Your task to perform on an android device: turn off picture-in-picture Image 0: 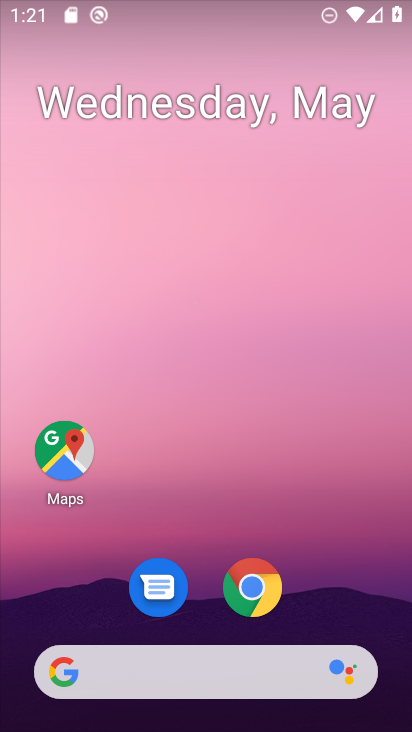
Step 0: drag from (317, 631) to (329, 149)
Your task to perform on an android device: turn off picture-in-picture Image 1: 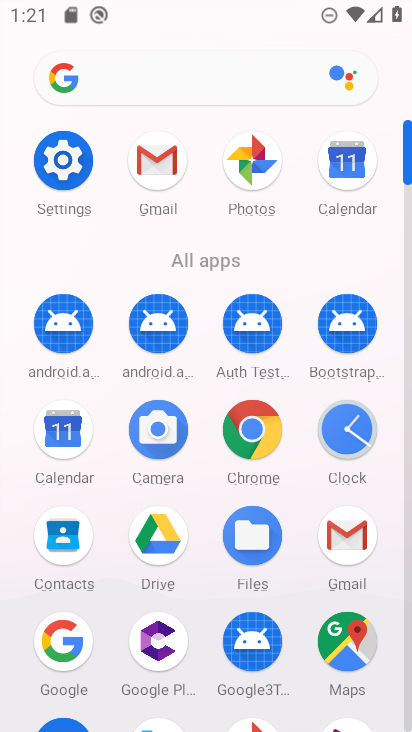
Step 1: click (39, 172)
Your task to perform on an android device: turn off picture-in-picture Image 2: 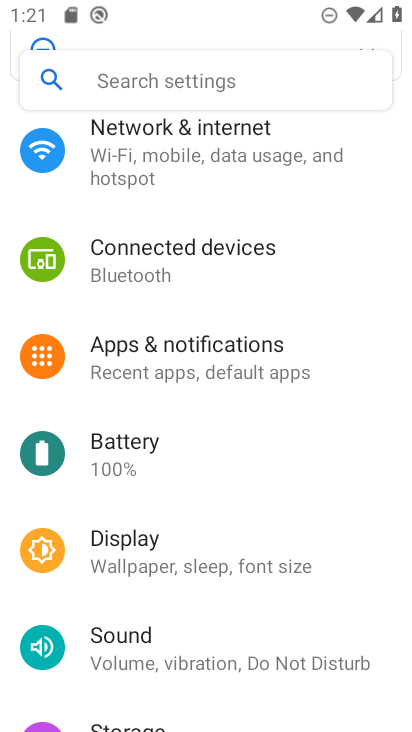
Step 2: click (160, 321)
Your task to perform on an android device: turn off picture-in-picture Image 3: 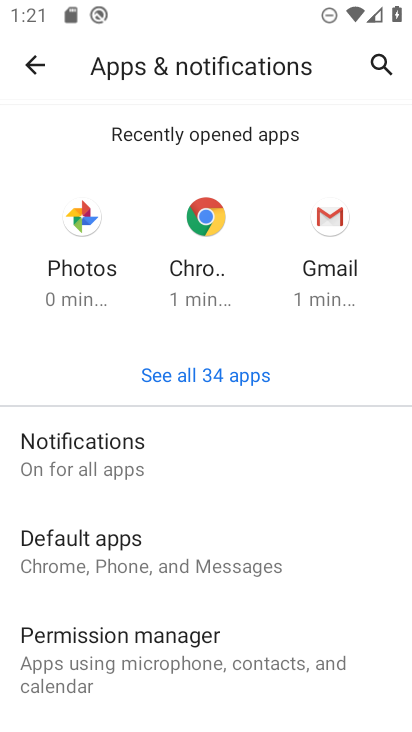
Step 3: drag from (154, 571) to (249, 334)
Your task to perform on an android device: turn off picture-in-picture Image 4: 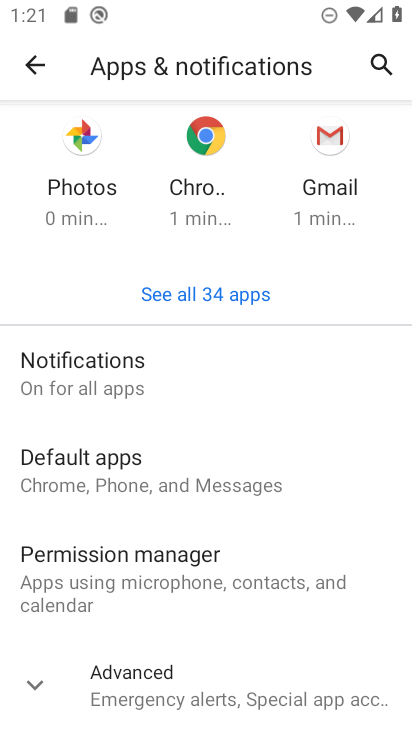
Step 4: click (128, 683)
Your task to perform on an android device: turn off picture-in-picture Image 5: 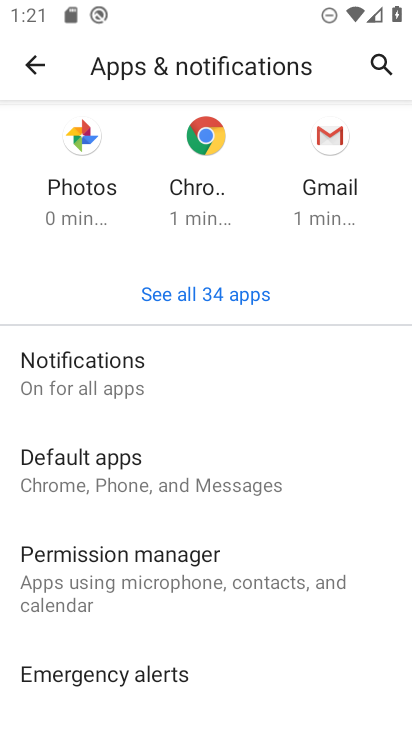
Step 5: drag from (164, 474) to (170, 419)
Your task to perform on an android device: turn off picture-in-picture Image 6: 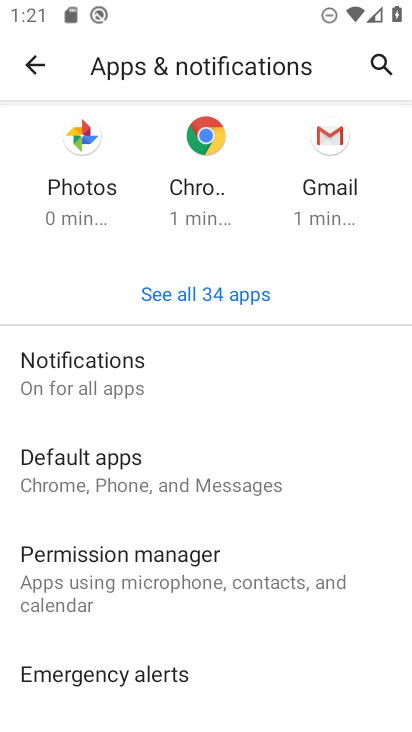
Step 6: drag from (136, 653) to (167, 398)
Your task to perform on an android device: turn off picture-in-picture Image 7: 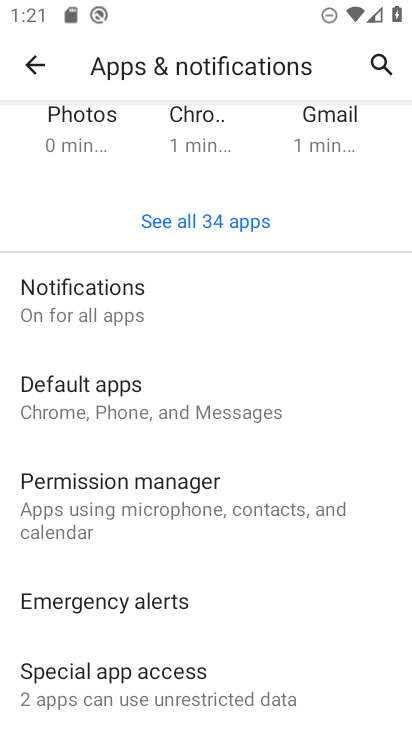
Step 7: click (103, 693)
Your task to perform on an android device: turn off picture-in-picture Image 8: 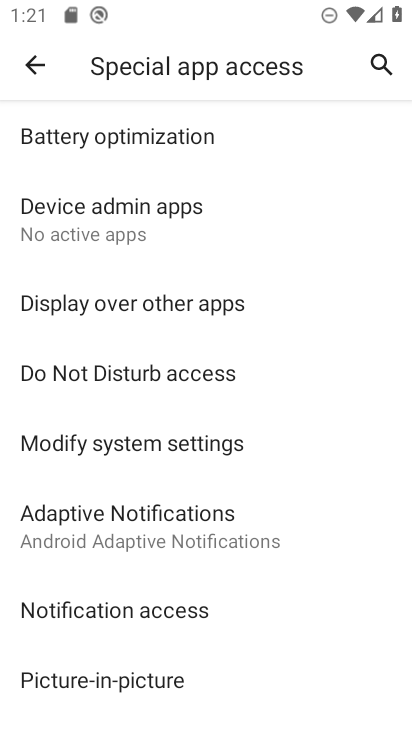
Step 8: click (99, 688)
Your task to perform on an android device: turn off picture-in-picture Image 9: 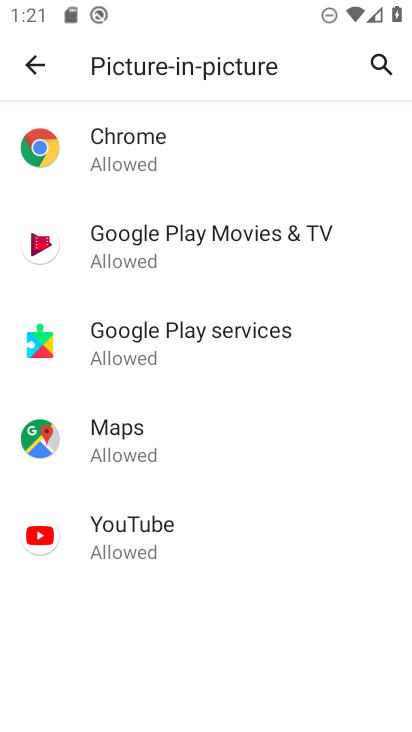
Step 9: click (145, 162)
Your task to perform on an android device: turn off picture-in-picture Image 10: 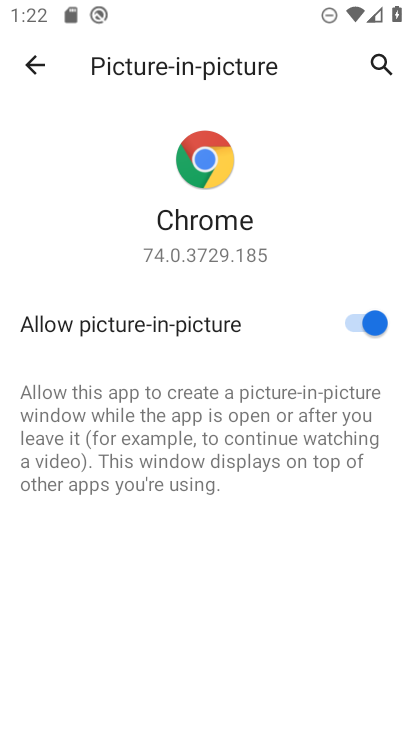
Step 10: click (359, 326)
Your task to perform on an android device: turn off picture-in-picture Image 11: 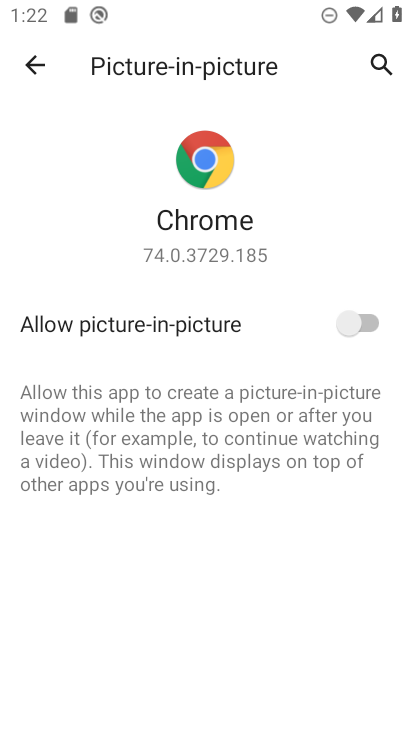
Step 11: task complete